Your task to perform on an android device: toggle sleep mode Image 0: 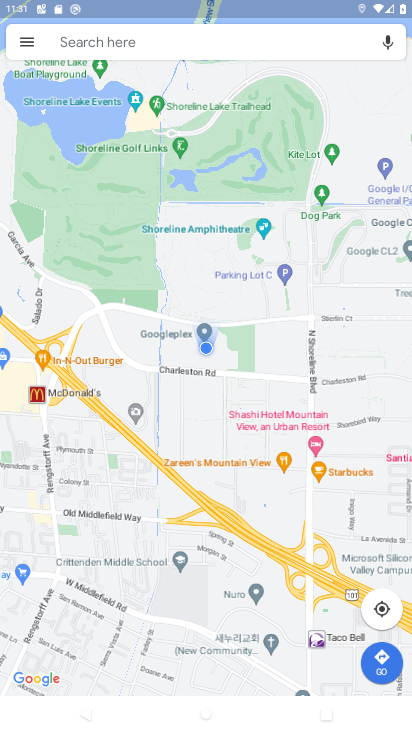
Step 0: press home button
Your task to perform on an android device: toggle sleep mode Image 1: 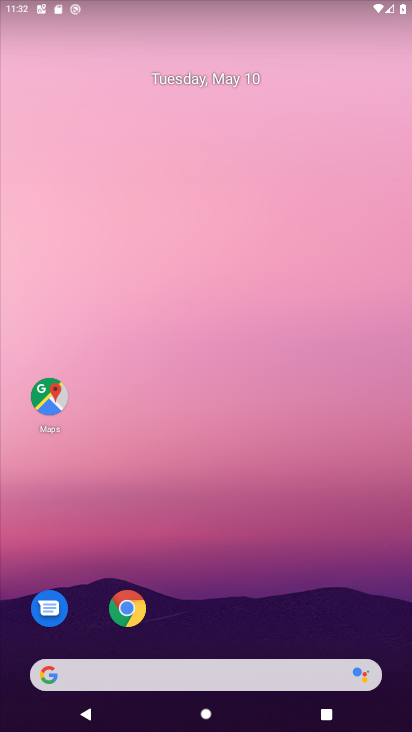
Step 1: drag from (235, 517) to (251, 151)
Your task to perform on an android device: toggle sleep mode Image 2: 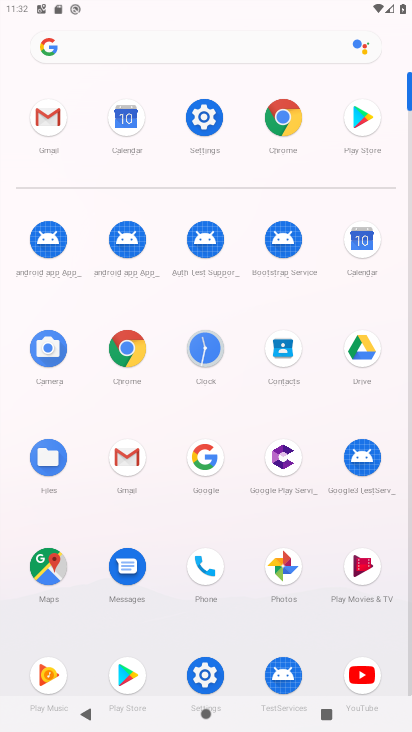
Step 2: click (211, 113)
Your task to perform on an android device: toggle sleep mode Image 3: 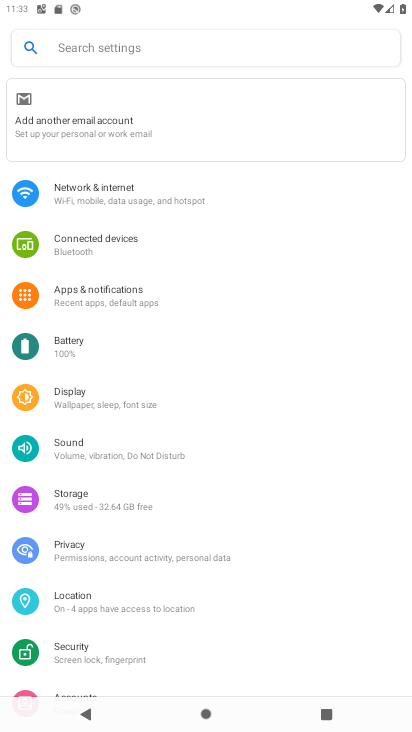
Step 3: click (112, 397)
Your task to perform on an android device: toggle sleep mode Image 4: 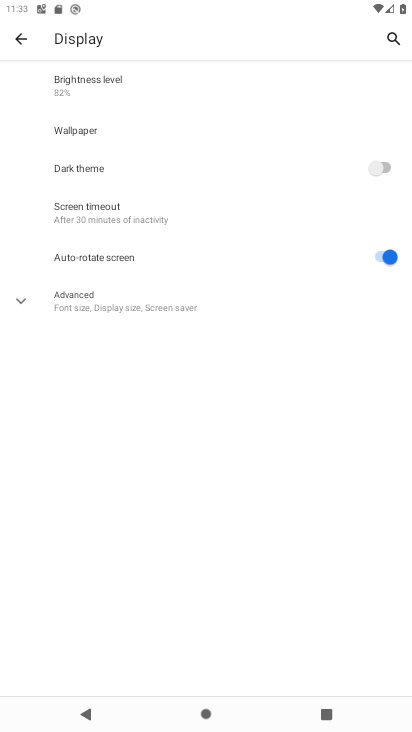
Step 4: click (128, 302)
Your task to perform on an android device: toggle sleep mode Image 5: 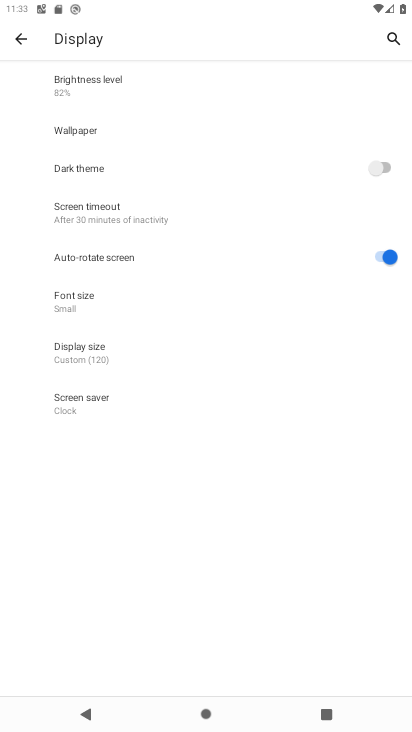
Step 5: task complete